Your task to perform on an android device: Open CNN.com Image 0: 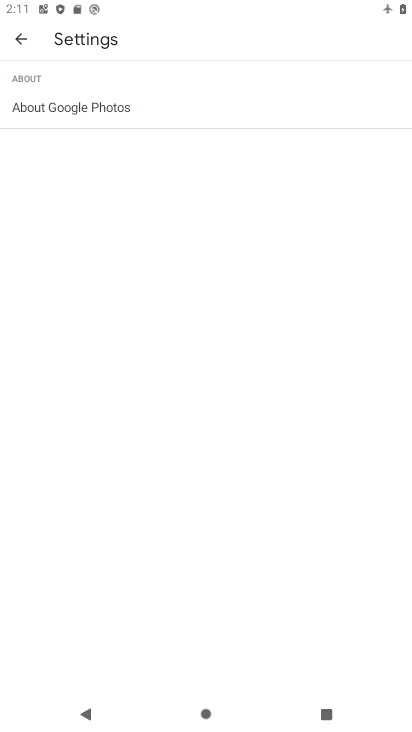
Step 0: press home button
Your task to perform on an android device: Open CNN.com Image 1: 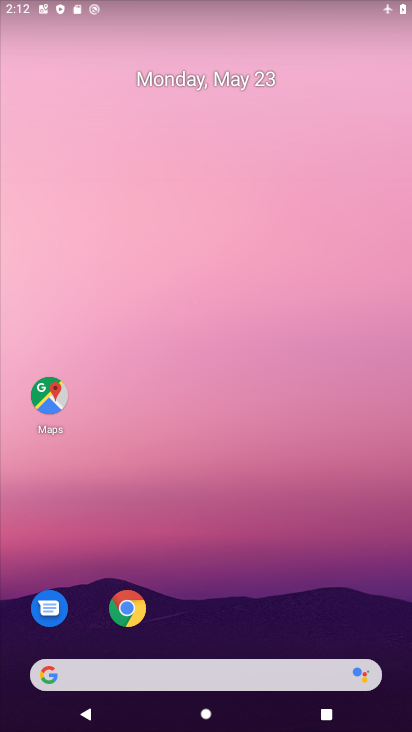
Step 1: click (109, 603)
Your task to perform on an android device: Open CNN.com Image 2: 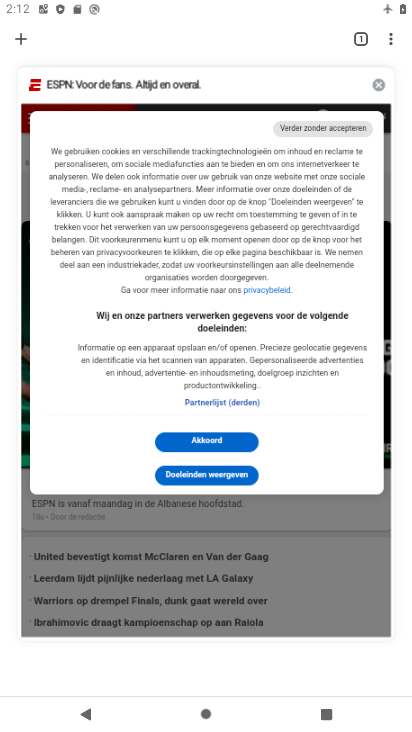
Step 2: click (20, 38)
Your task to perform on an android device: Open CNN.com Image 3: 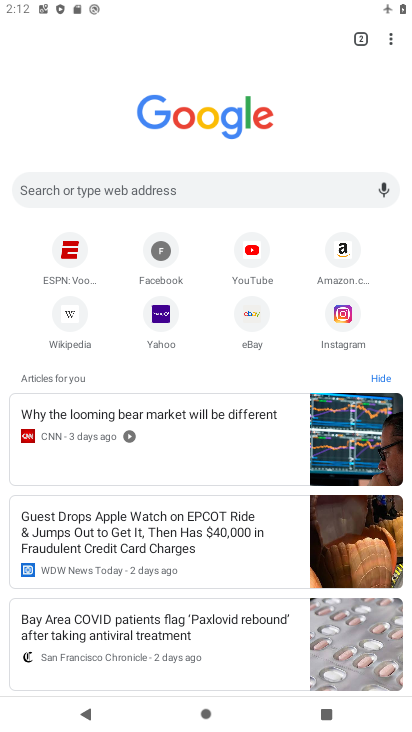
Step 3: click (99, 461)
Your task to perform on an android device: Open CNN.com Image 4: 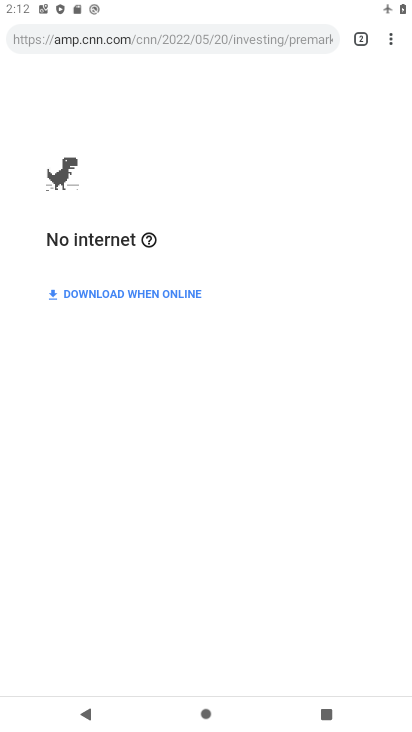
Step 4: task complete